Your task to perform on an android device: set an alarm Image 0: 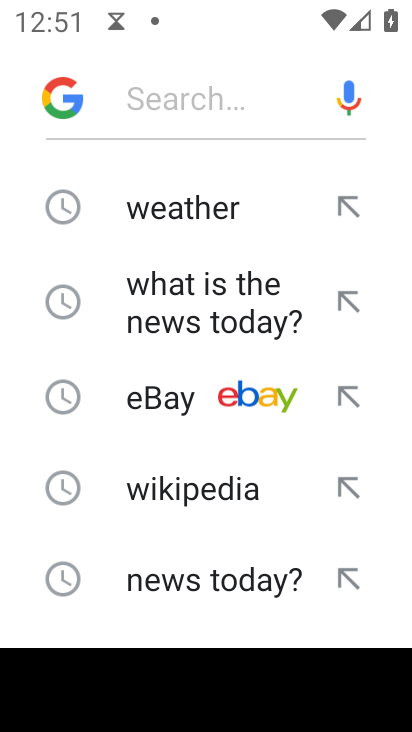
Step 0: press home button
Your task to perform on an android device: set an alarm Image 1: 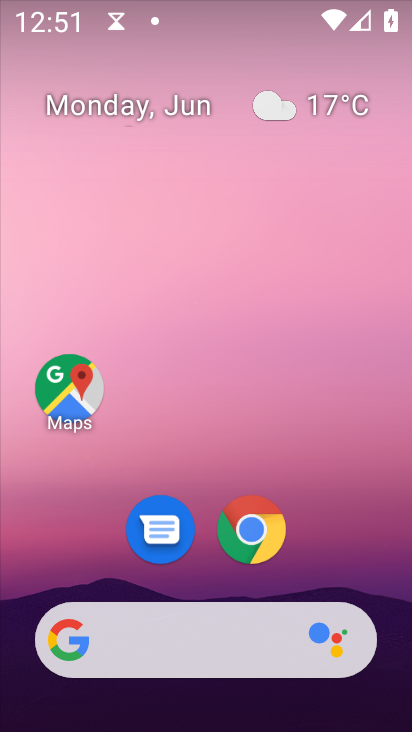
Step 1: drag from (328, 441) to (314, 0)
Your task to perform on an android device: set an alarm Image 2: 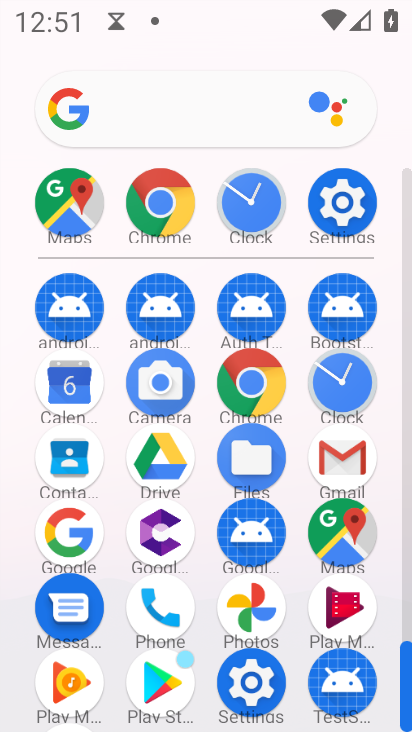
Step 2: click (327, 386)
Your task to perform on an android device: set an alarm Image 3: 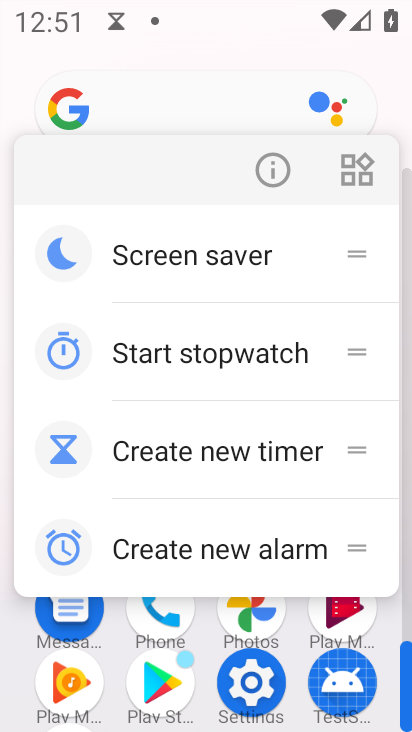
Step 3: press back button
Your task to perform on an android device: set an alarm Image 4: 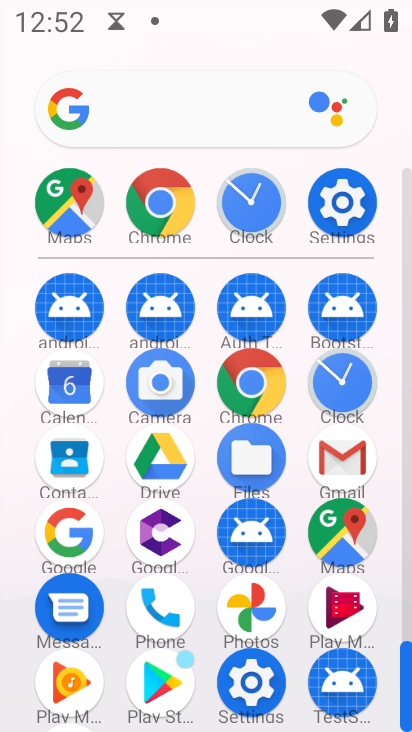
Step 4: click (348, 393)
Your task to perform on an android device: set an alarm Image 5: 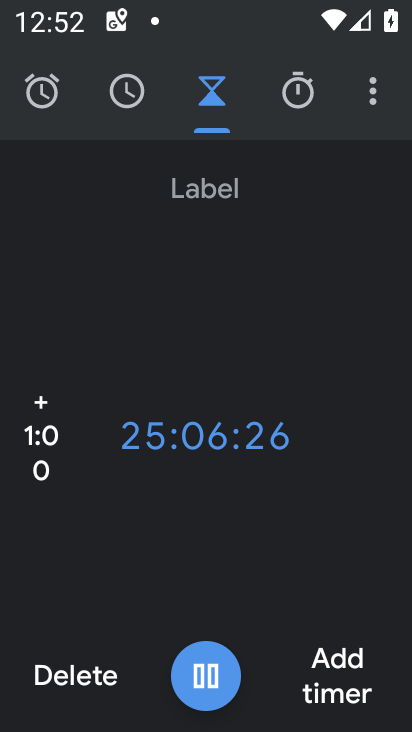
Step 5: click (35, 109)
Your task to perform on an android device: set an alarm Image 6: 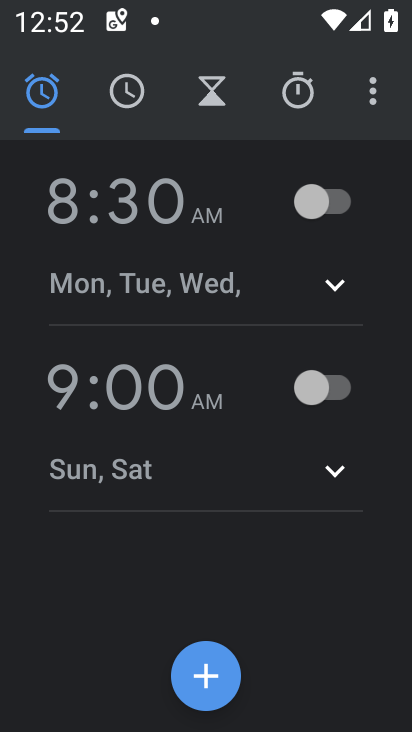
Step 6: click (335, 217)
Your task to perform on an android device: set an alarm Image 7: 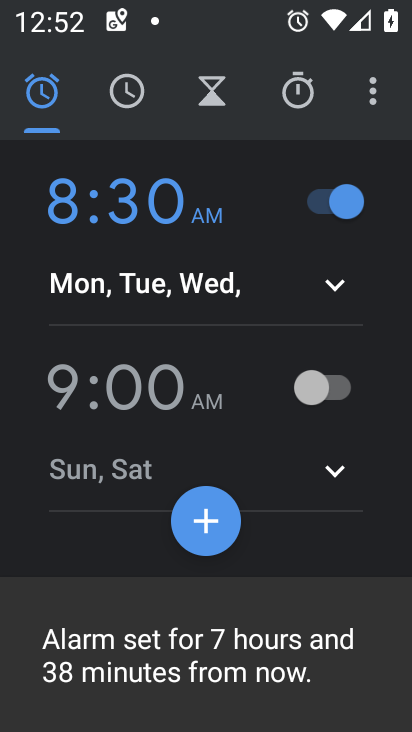
Step 7: task complete